Your task to perform on an android device: turn off improve location accuracy Image 0: 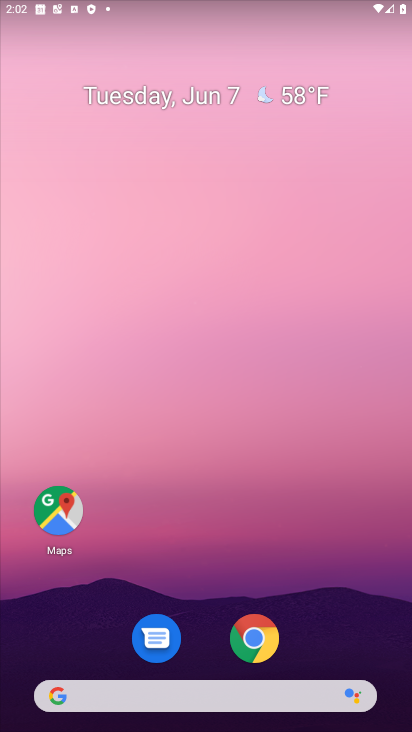
Step 0: drag from (212, 645) to (274, 224)
Your task to perform on an android device: turn off improve location accuracy Image 1: 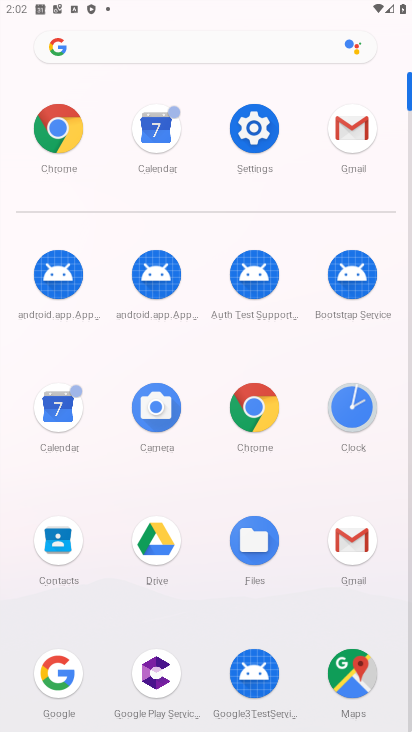
Step 1: click (255, 123)
Your task to perform on an android device: turn off improve location accuracy Image 2: 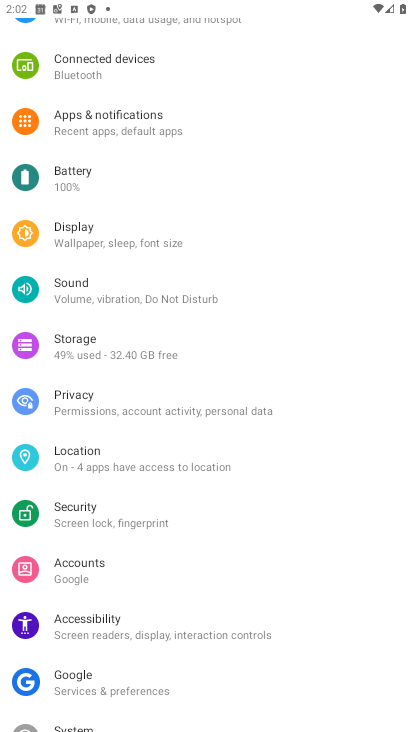
Step 2: click (101, 457)
Your task to perform on an android device: turn off improve location accuracy Image 3: 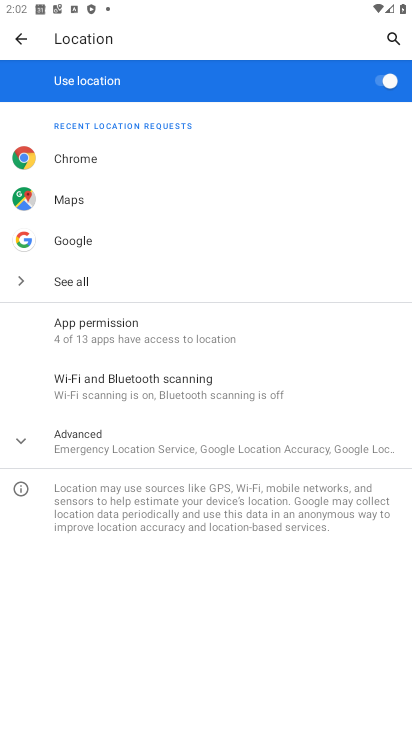
Step 3: click (23, 436)
Your task to perform on an android device: turn off improve location accuracy Image 4: 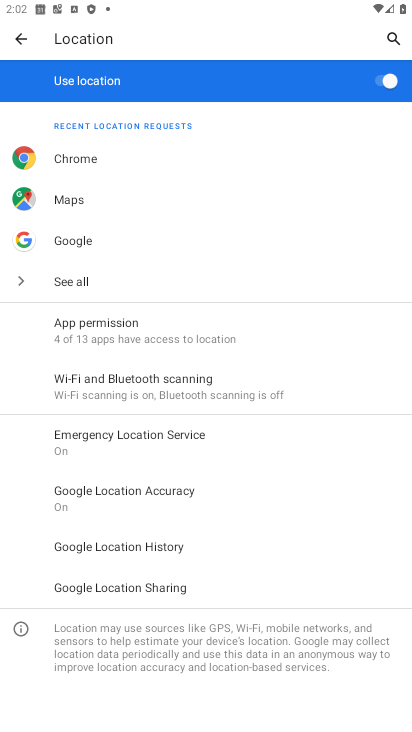
Step 4: click (133, 492)
Your task to perform on an android device: turn off improve location accuracy Image 5: 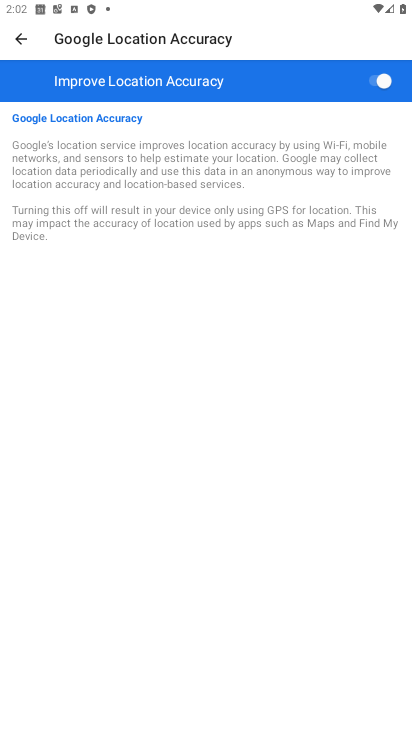
Step 5: click (372, 79)
Your task to perform on an android device: turn off improve location accuracy Image 6: 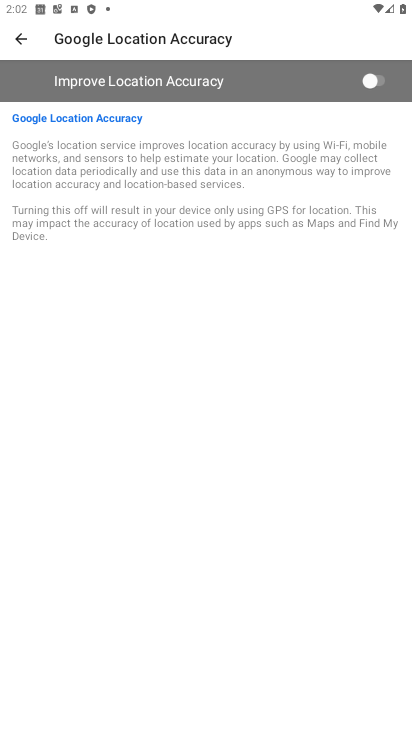
Step 6: task complete